Your task to perform on an android device: Open the Play Movies app and select the watchlist tab. Image 0: 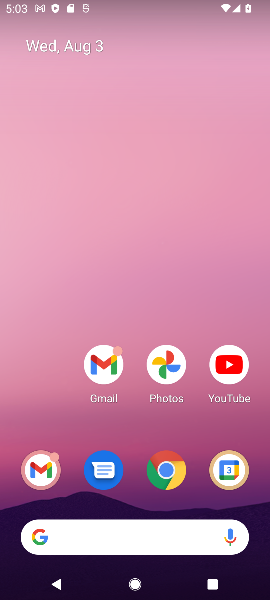
Step 0: drag from (41, 398) to (136, 23)
Your task to perform on an android device: Open the Play Movies app and select the watchlist tab. Image 1: 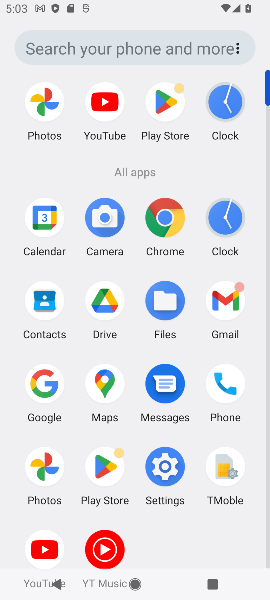
Step 1: task complete